Your task to perform on an android device: Go to network settings Image 0: 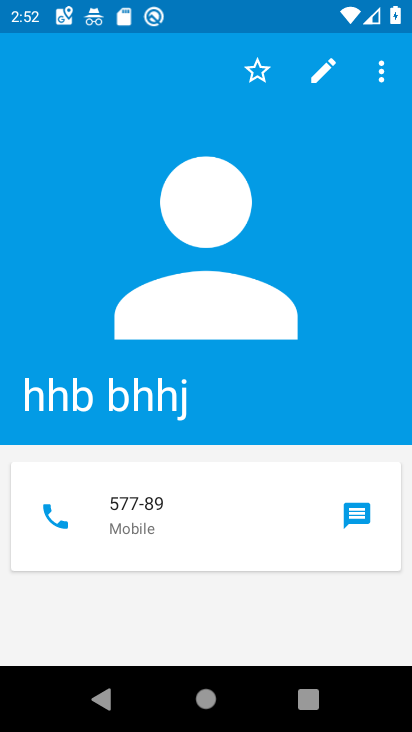
Step 0: press home button
Your task to perform on an android device: Go to network settings Image 1: 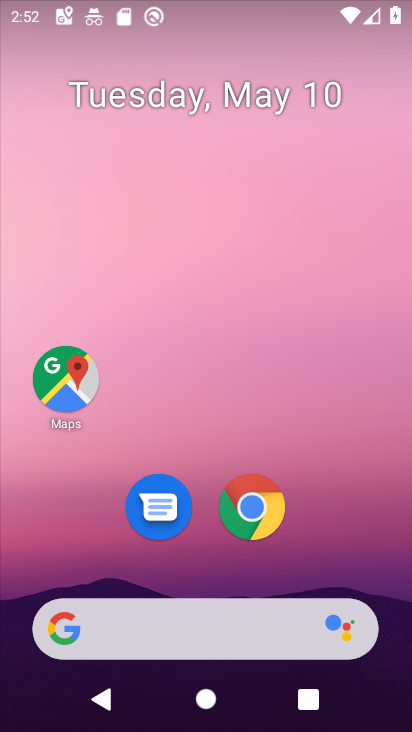
Step 1: drag from (192, 576) to (259, 125)
Your task to perform on an android device: Go to network settings Image 2: 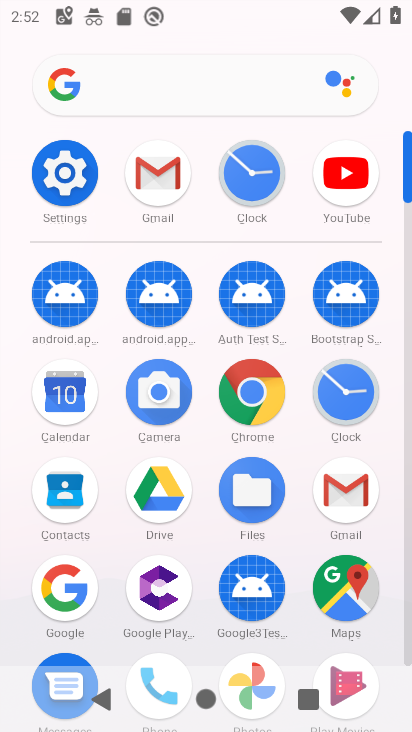
Step 2: click (67, 180)
Your task to perform on an android device: Go to network settings Image 3: 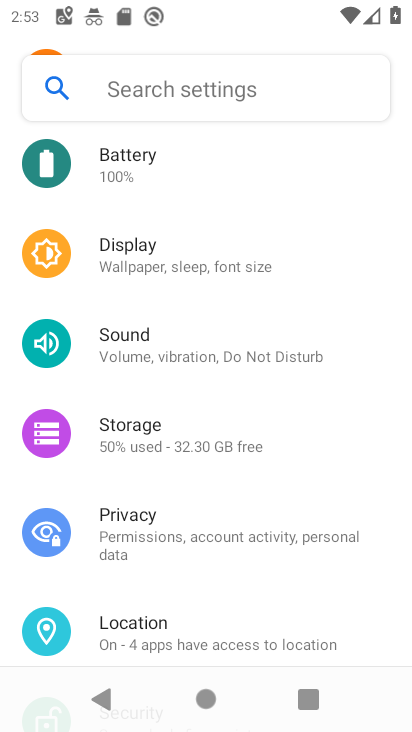
Step 3: drag from (197, 214) to (180, 419)
Your task to perform on an android device: Go to network settings Image 4: 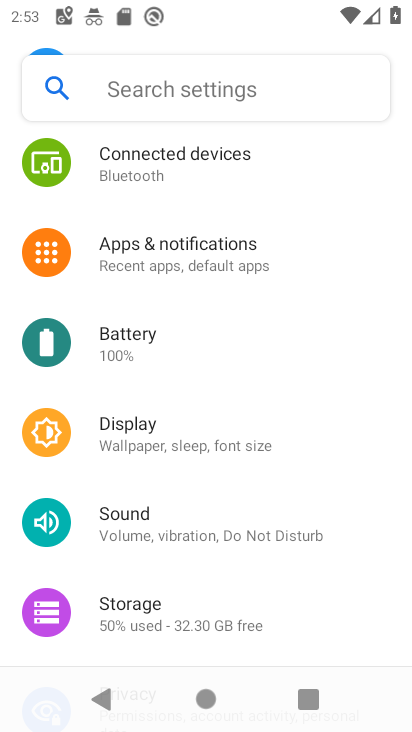
Step 4: drag from (184, 197) to (185, 369)
Your task to perform on an android device: Go to network settings Image 5: 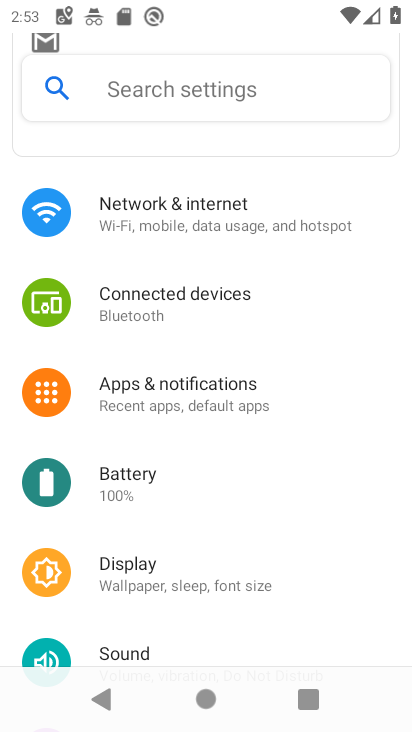
Step 5: drag from (170, 257) to (168, 411)
Your task to perform on an android device: Go to network settings Image 6: 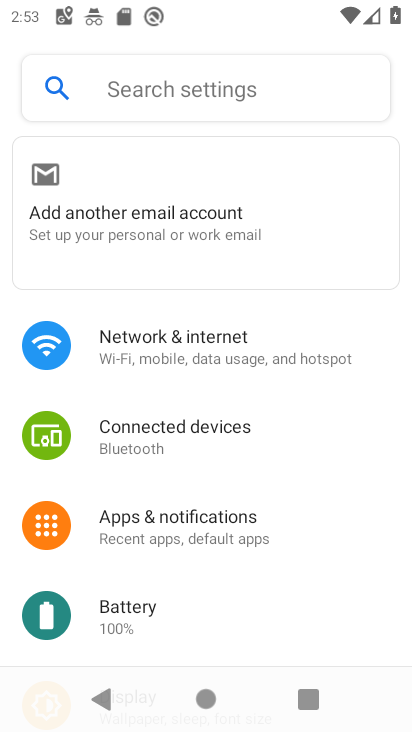
Step 6: click (189, 342)
Your task to perform on an android device: Go to network settings Image 7: 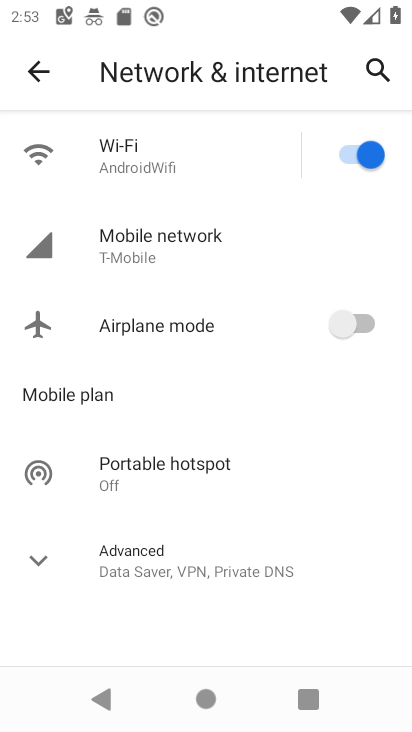
Step 7: task complete